Your task to perform on an android device: check battery use Image 0: 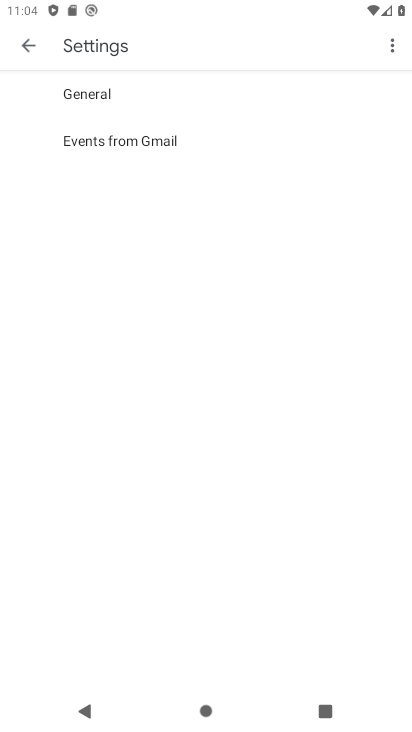
Step 0: press home button
Your task to perform on an android device: check battery use Image 1: 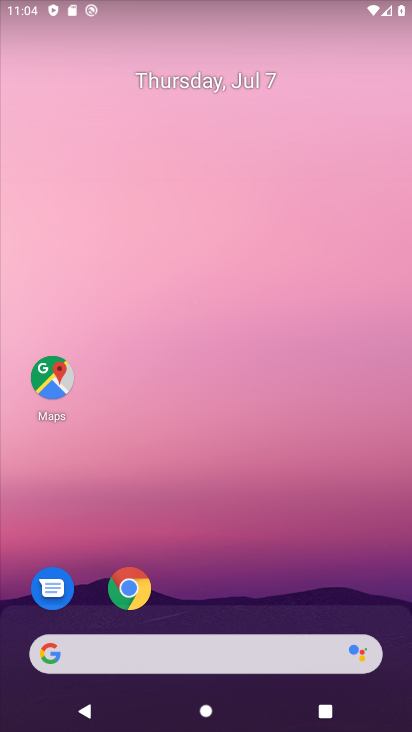
Step 1: drag from (181, 240) to (180, 155)
Your task to perform on an android device: check battery use Image 2: 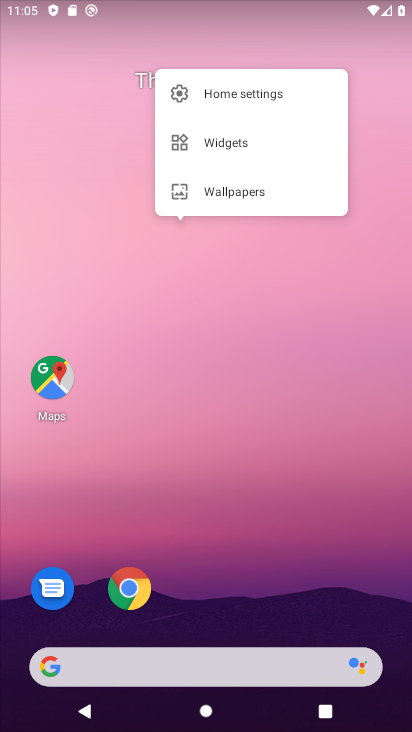
Step 2: click (282, 460)
Your task to perform on an android device: check battery use Image 3: 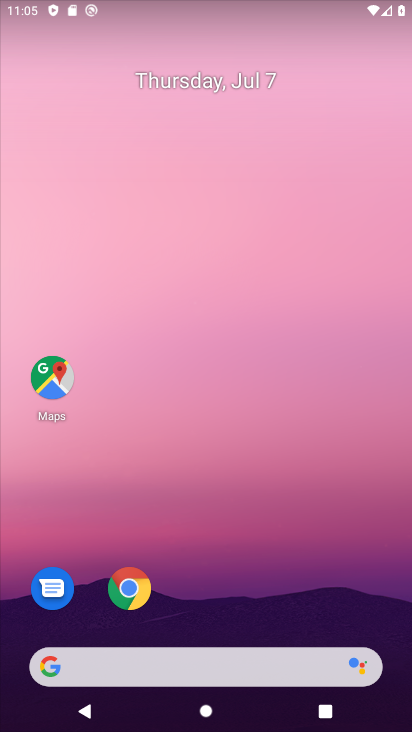
Step 3: drag from (252, 673) to (289, 177)
Your task to perform on an android device: check battery use Image 4: 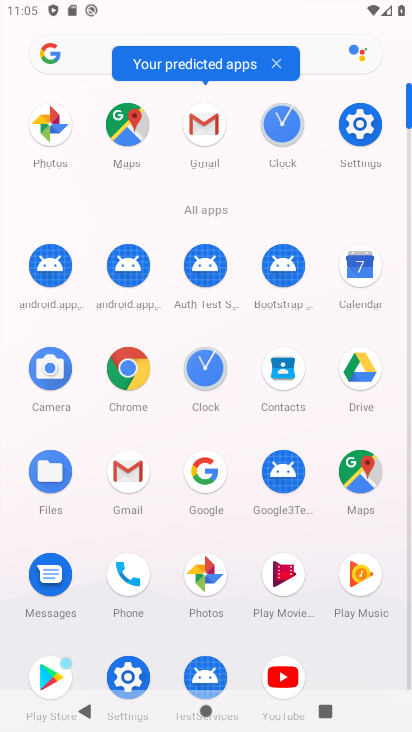
Step 4: drag from (363, 138) to (257, 591)
Your task to perform on an android device: check battery use Image 5: 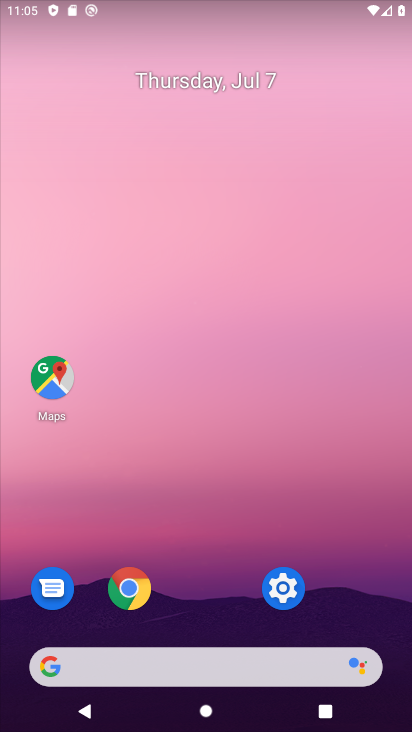
Step 5: click (292, 567)
Your task to perform on an android device: check battery use Image 6: 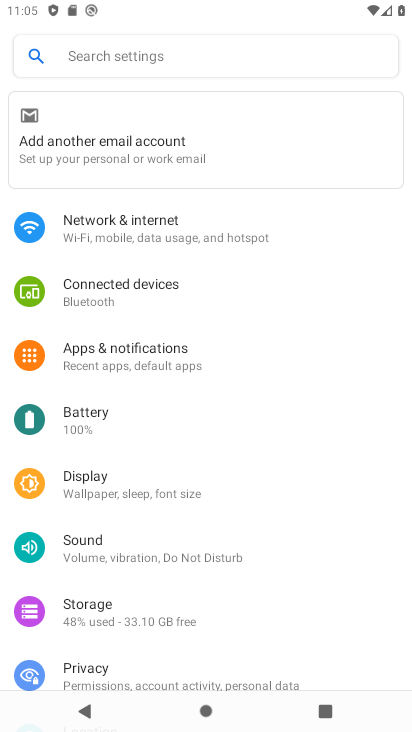
Step 6: click (125, 421)
Your task to perform on an android device: check battery use Image 7: 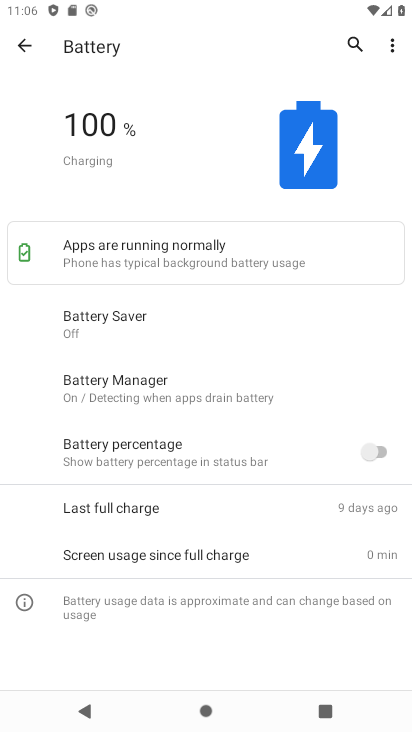
Step 7: task complete